Your task to perform on an android device: Toggle the flashlight Image 0: 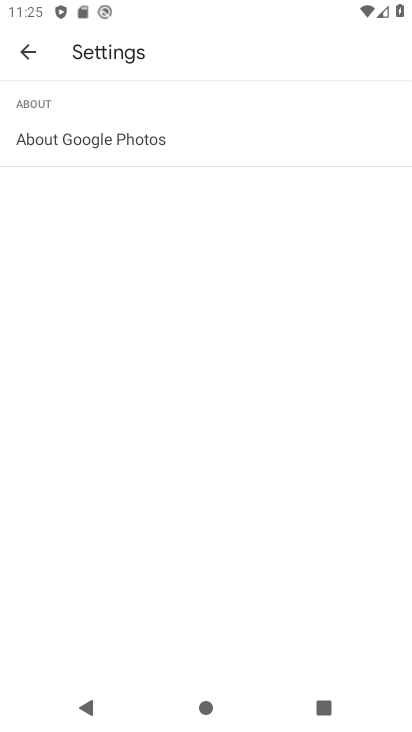
Step 0: drag from (274, 9) to (216, 725)
Your task to perform on an android device: Toggle the flashlight Image 1: 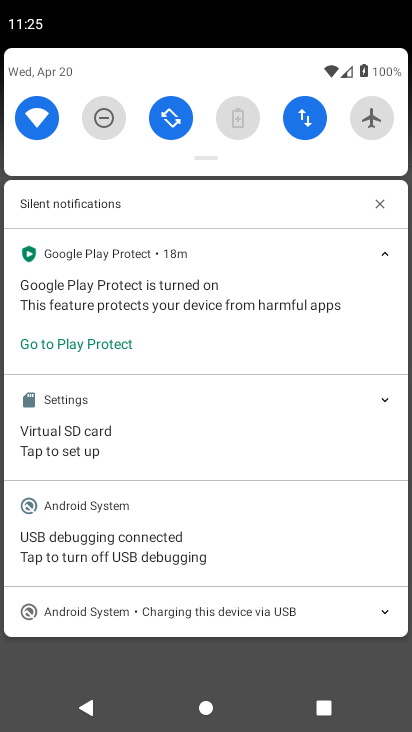
Step 1: drag from (265, 142) to (249, 651)
Your task to perform on an android device: Toggle the flashlight Image 2: 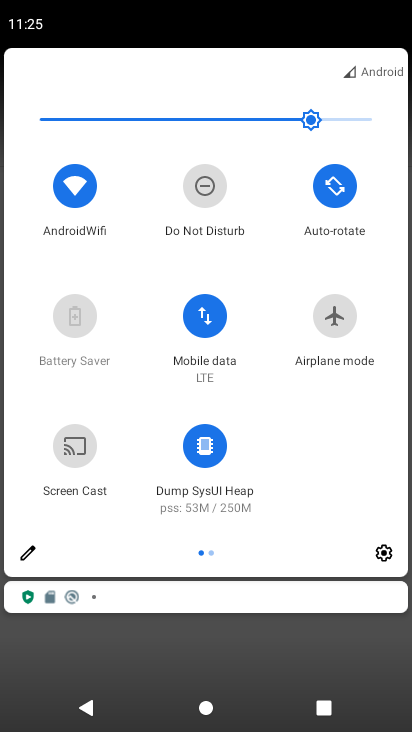
Step 2: drag from (290, 544) to (272, 731)
Your task to perform on an android device: Toggle the flashlight Image 3: 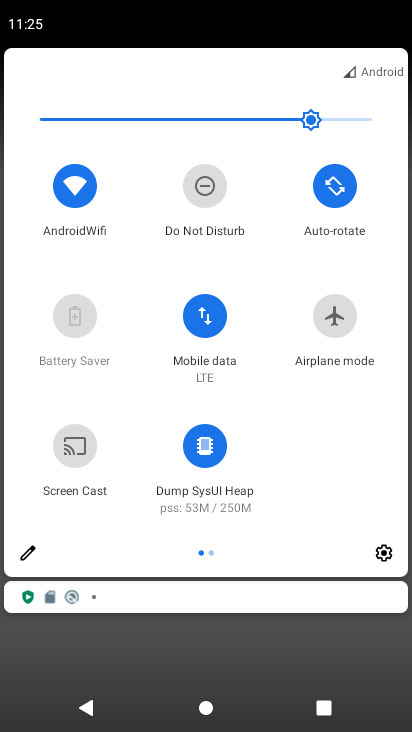
Step 3: drag from (378, 400) to (112, 397)
Your task to perform on an android device: Toggle the flashlight Image 4: 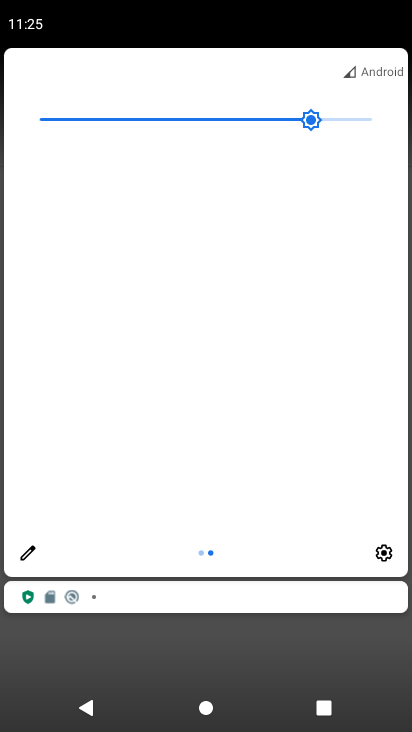
Step 4: click (18, 556)
Your task to perform on an android device: Toggle the flashlight Image 5: 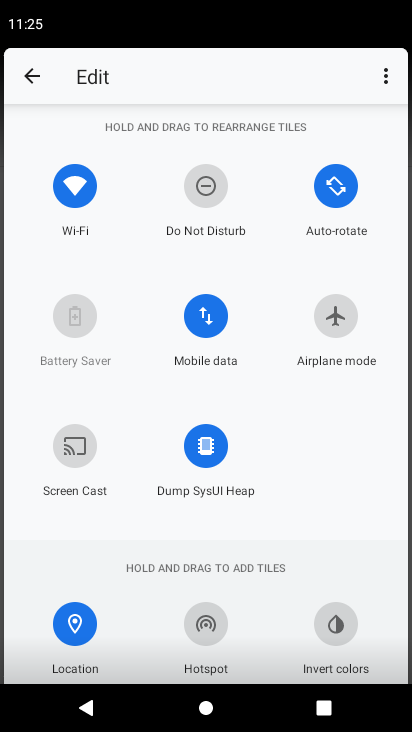
Step 5: task complete